Your task to perform on an android device: Is it going to rain tomorrow? Image 0: 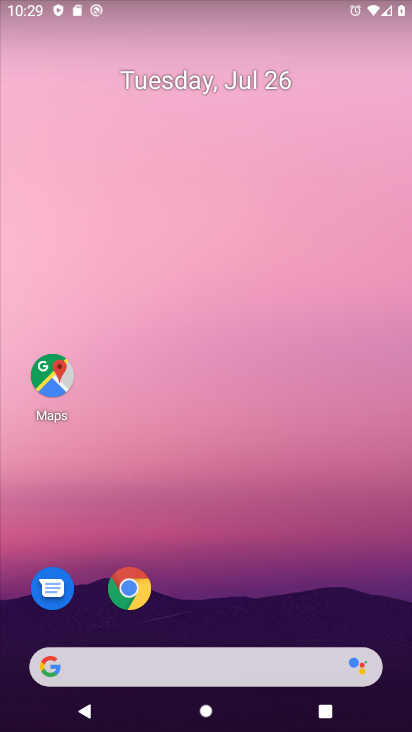
Step 0: click (155, 661)
Your task to perform on an android device: Is it going to rain tomorrow? Image 1: 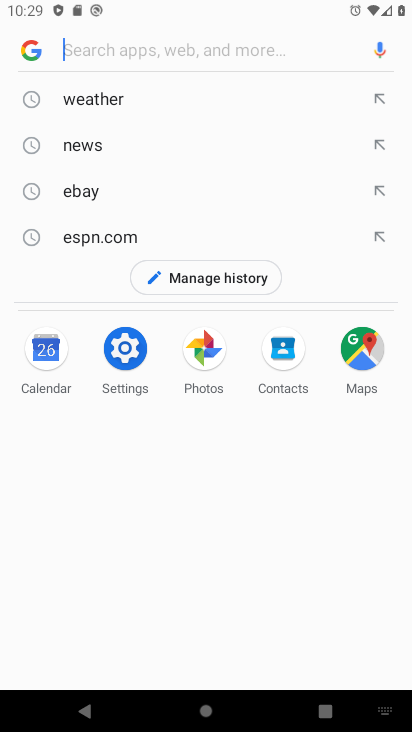
Step 1: click (102, 99)
Your task to perform on an android device: Is it going to rain tomorrow? Image 2: 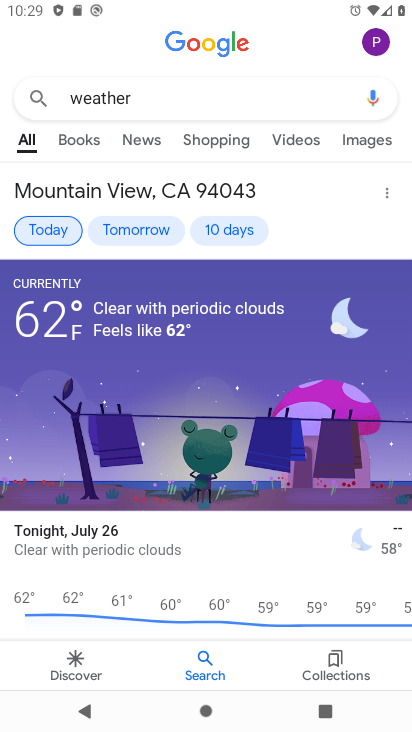
Step 2: click (153, 227)
Your task to perform on an android device: Is it going to rain tomorrow? Image 3: 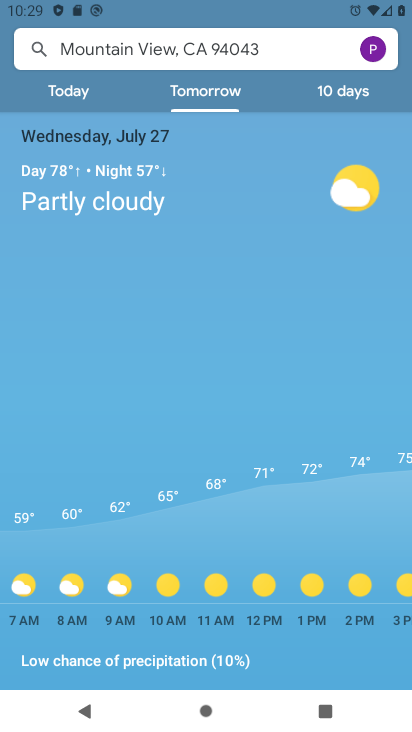
Step 3: task complete